Your task to perform on an android device: Open my contact list Image 0: 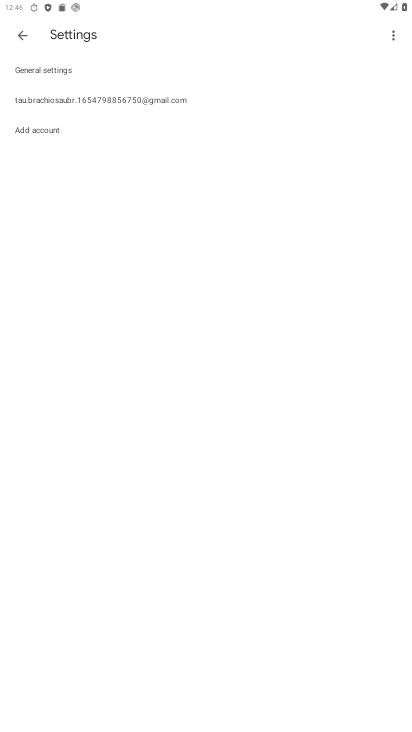
Step 0: press home button
Your task to perform on an android device: Open my contact list Image 1: 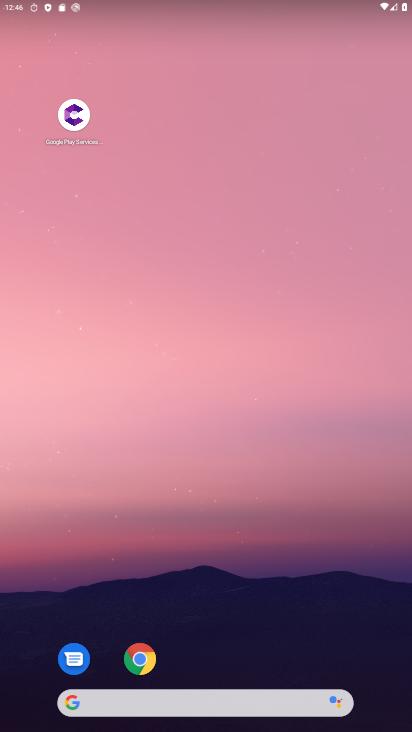
Step 1: drag from (299, 698) to (389, 61)
Your task to perform on an android device: Open my contact list Image 2: 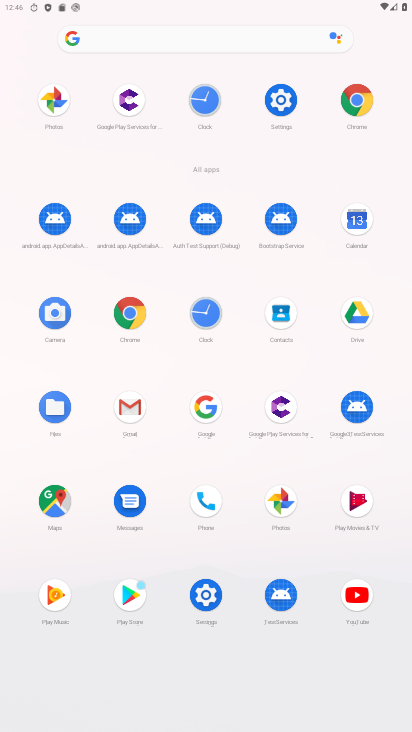
Step 2: click (284, 323)
Your task to perform on an android device: Open my contact list Image 3: 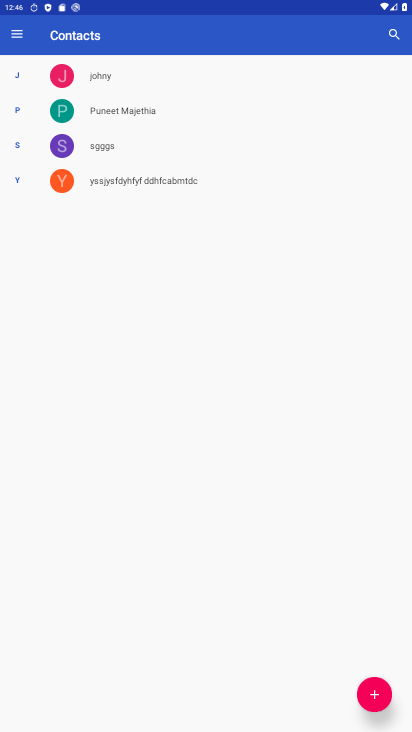
Step 3: click (367, 690)
Your task to perform on an android device: Open my contact list Image 4: 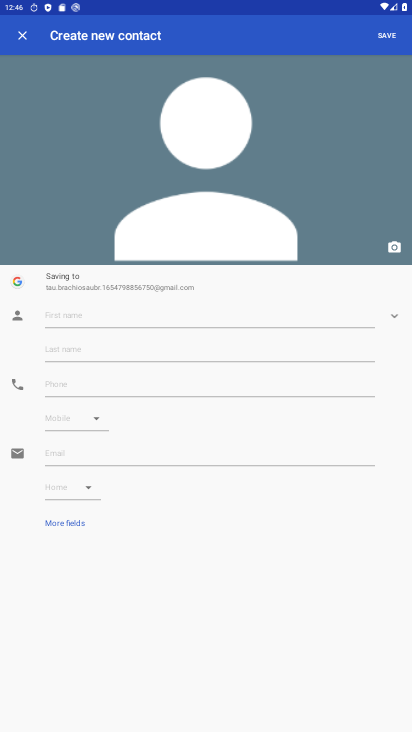
Step 4: click (148, 320)
Your task to perform on an android device: Open my contact list Image 5: 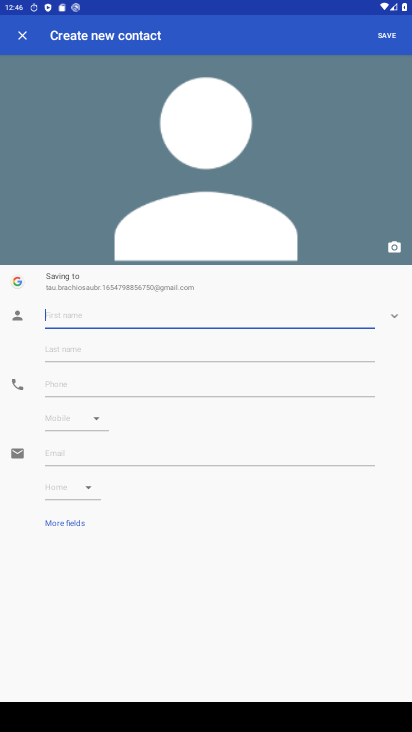
Step 5: type "himani"
Your task to perform on an android device: Open my contact list Image 6: 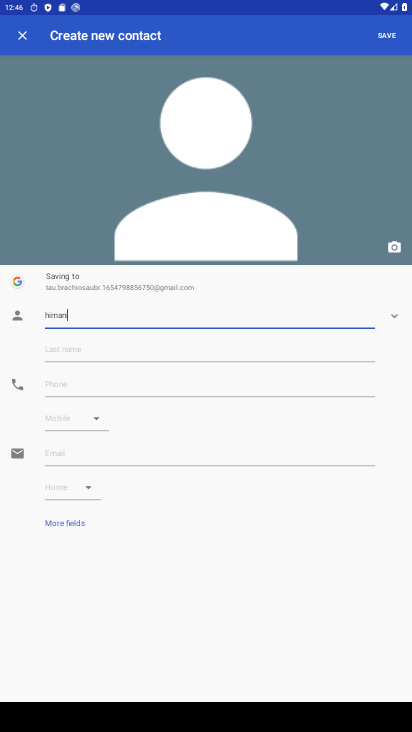
Step 6: click (64, 378)
Your task to perform on an android device: Open my contact list Image 7: 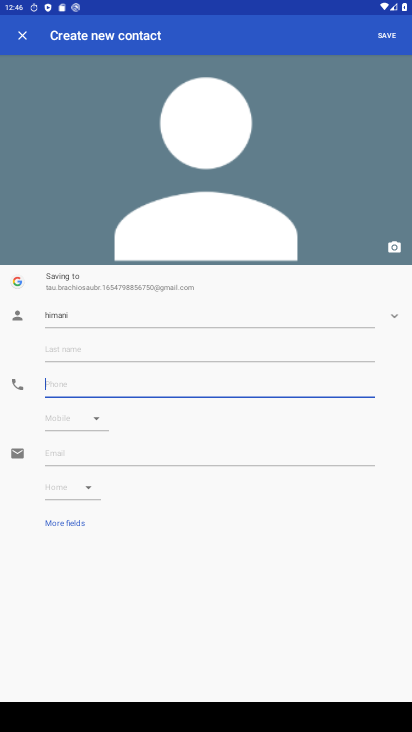
Step 7: type "9876543267"
Your task to perform on an android device: Open my contact list Image 8: 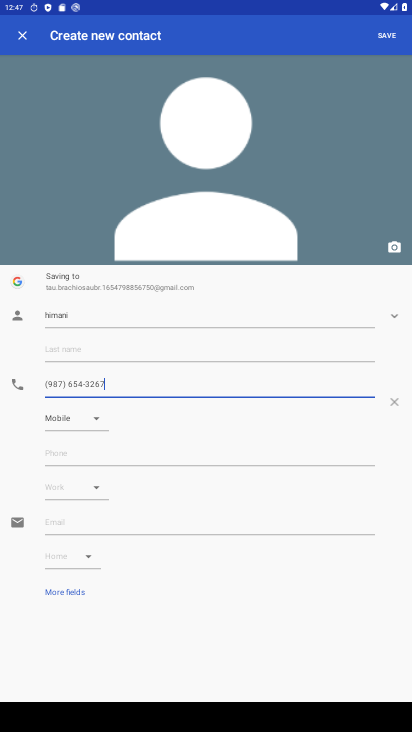
Step 8: click (379, 31)
Your task to perform on an android device: Open my contact list Image 9: 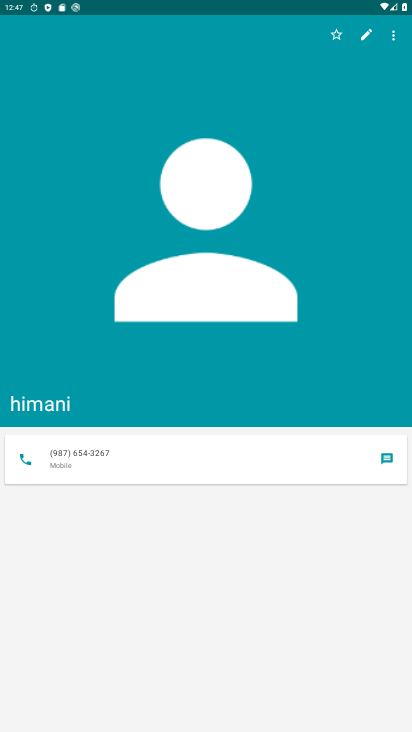
Step 9: task complete